Your task to perform on an android device: turn on javascript in the chrome app Image 0: 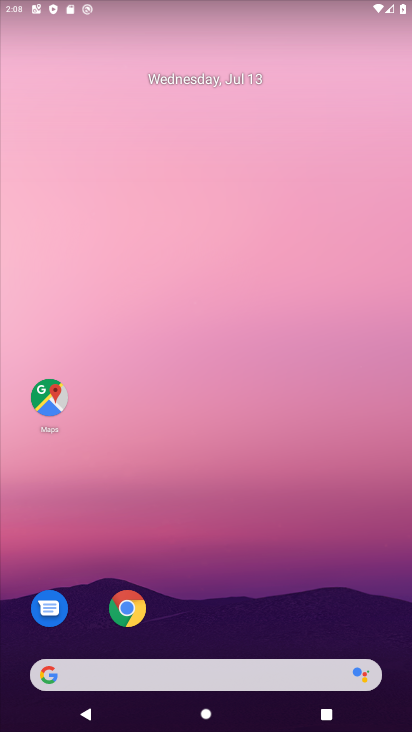
Step 0: click (130, 610)
Your task to perform on an android device: turn on javascript in the chrome app Image 1: 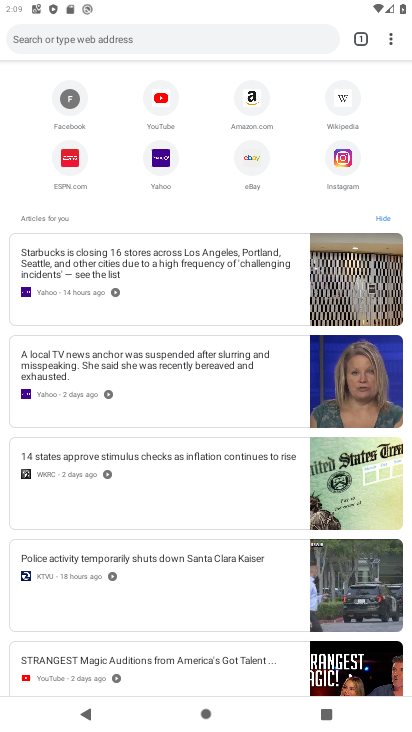
Step 1: click (389, 43)
Your task to perform on an android device: turn on javascript in the chrome app Image 2: 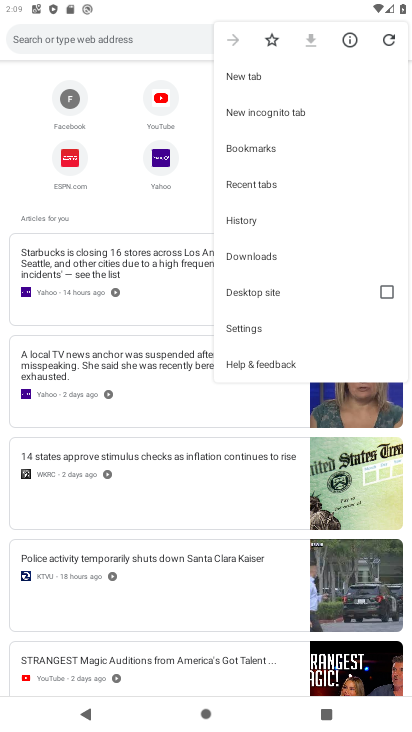
Step 2: click (245, 324)
Your task to perform on an android device: turn on javascript in the chrome app Image 3: 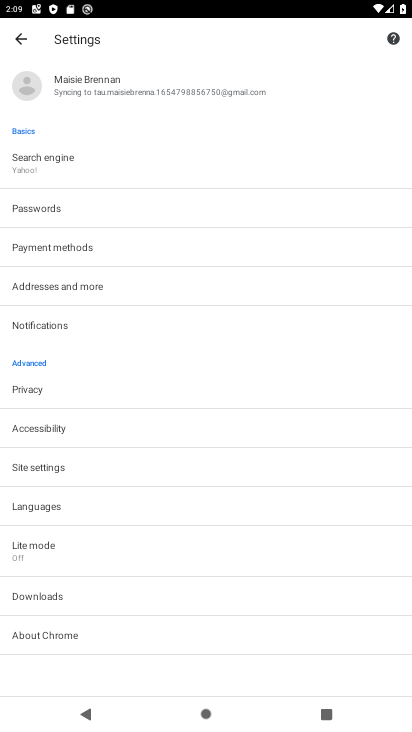
Step 3: click (42, 474)
Your task to perform on an android device: turn on javascript in the chrome app Image 4: 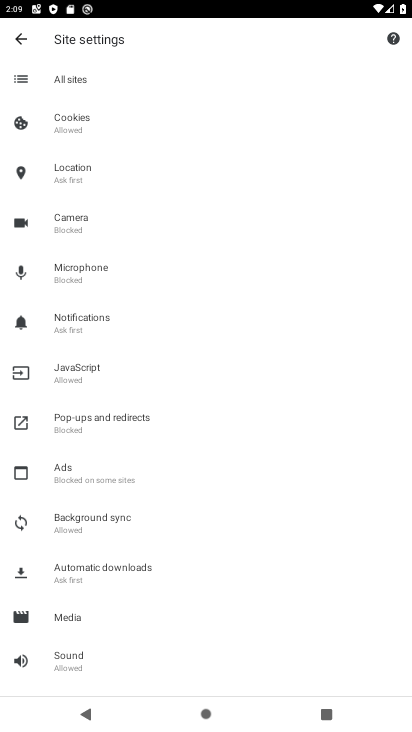
Step 4: click (72, 363)
Your task to perform on an android device: turn on javascript in the chrome app Image 5: 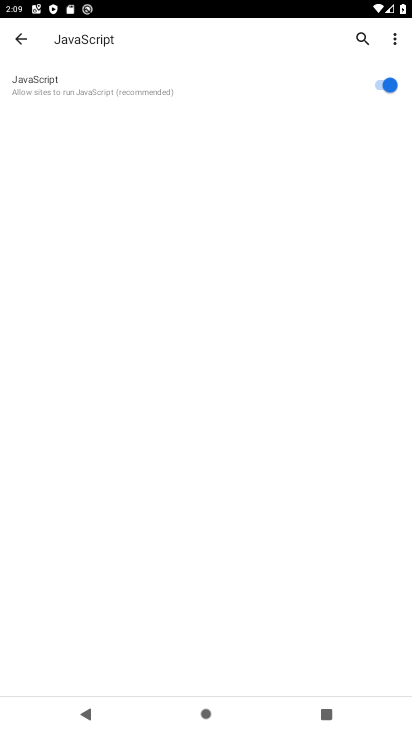
Step 5: task complete